Your task to perform on an android device: toggle show notifications on the lock screen Image 0: 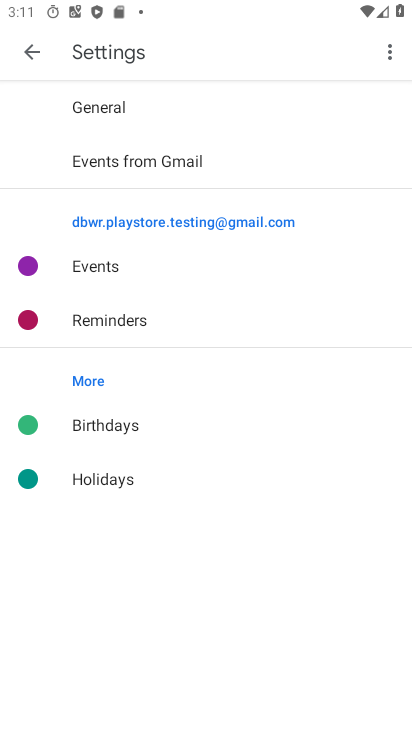
Step 0: press home button
Your task to perform on an android device: toggle show notifications on the lock screen Image 1: 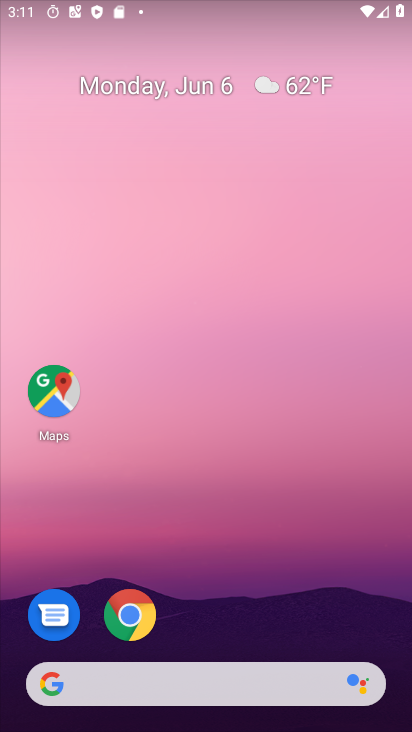
Step 1: drag from (235, 689) to (195, 4)
Your task to perform on an android device: toggle show notifications on the lock screen Image 2: 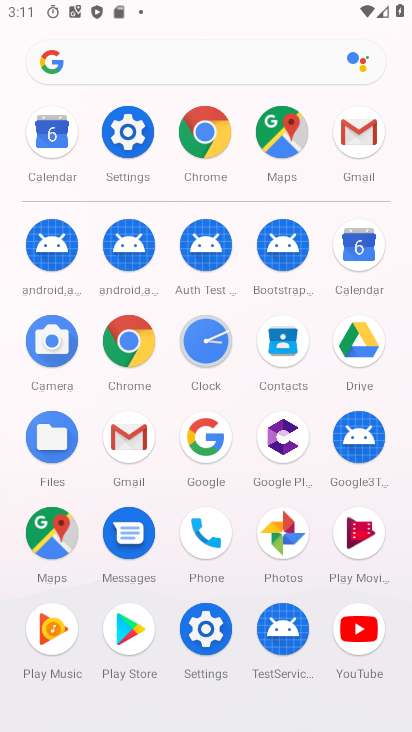
Step 2: click (111, 121)
Your task to perform on an android device: toggle show notifications on the lock screen Image 3: 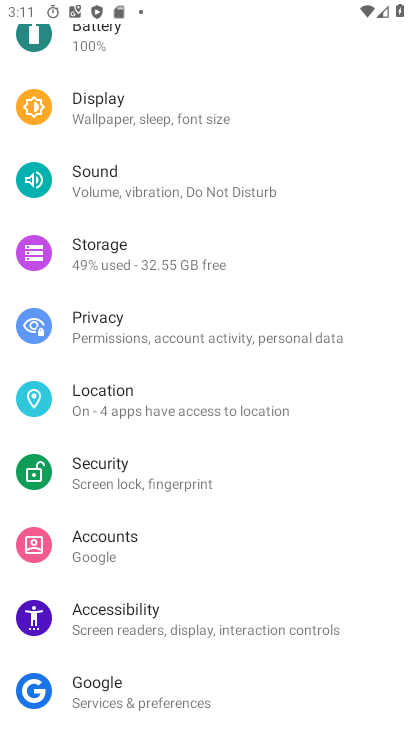
Step 3: drag from (142, 258) to (228, 728)
Your task to perform on an android device: toggle show notifications on the lock screen Image 4: 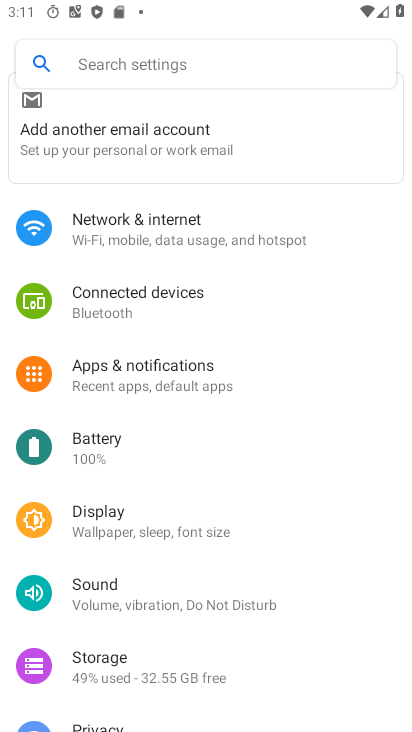
Step 4: click (173, 386)
Your task to perform on an android device: toggle show notifications on the lock screen Image 5: 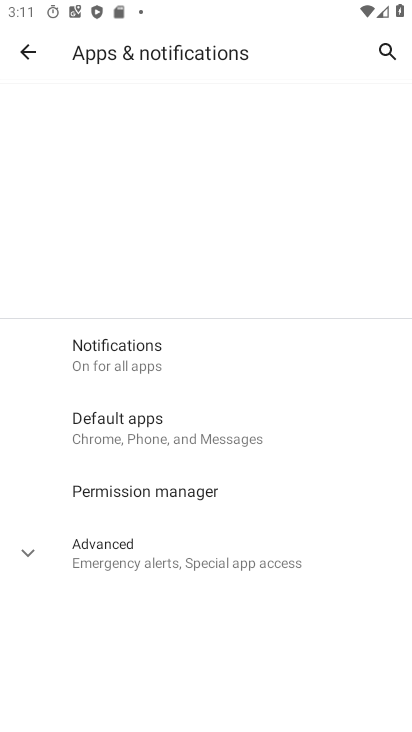
Step 5: click (174, 380)
Your task to perform on an android device: toggle show notifications on the lock screen Image 6: 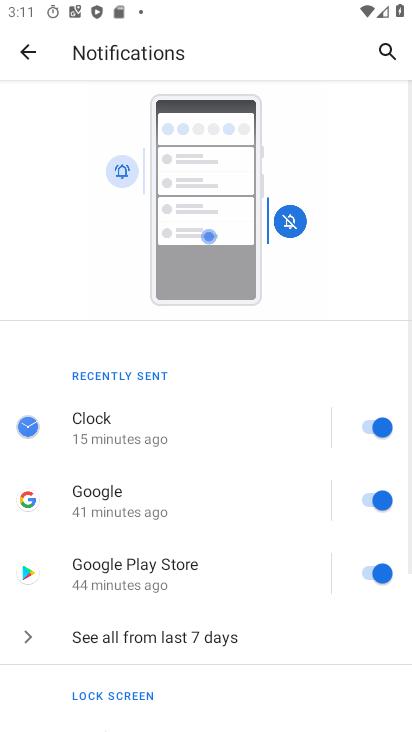
Step 6: drag from (162, 677) to (231, 193)
Your task to perform on an android device: toggle show notifications on the lock screen Image 7: 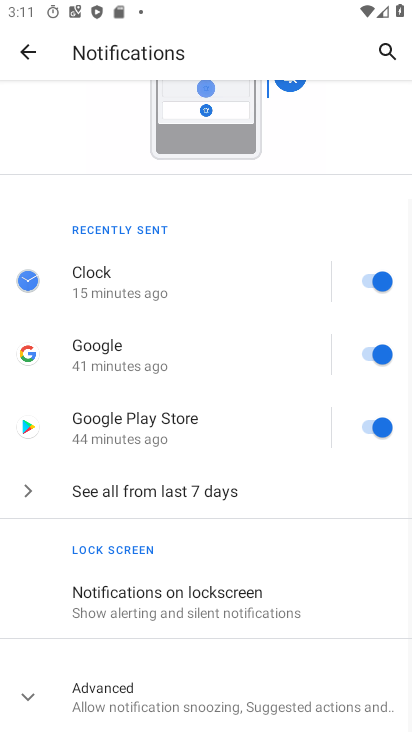
Step 7: click (248, 610)
Your task to perform on an android device: toggle show notifications on the lock screen Image 8: 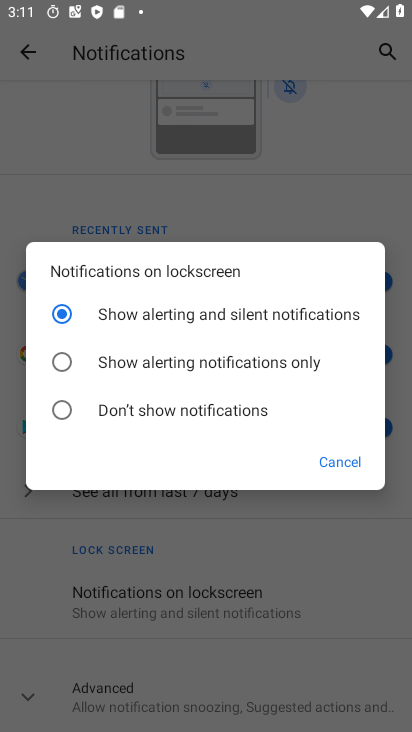
Step 8: click (65, 368)
Your task to perform on an android device: toggle show notifications on the lock screen Image 9: 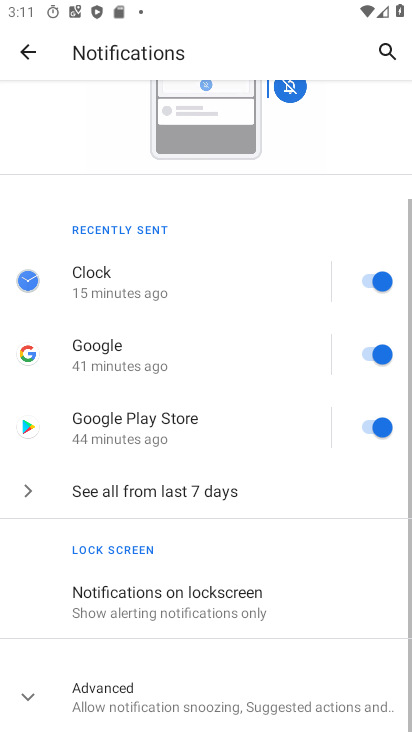
Step 9: task complete